Your task to perform on an android device: open app "Google News" (install if not already installed) Image 0: 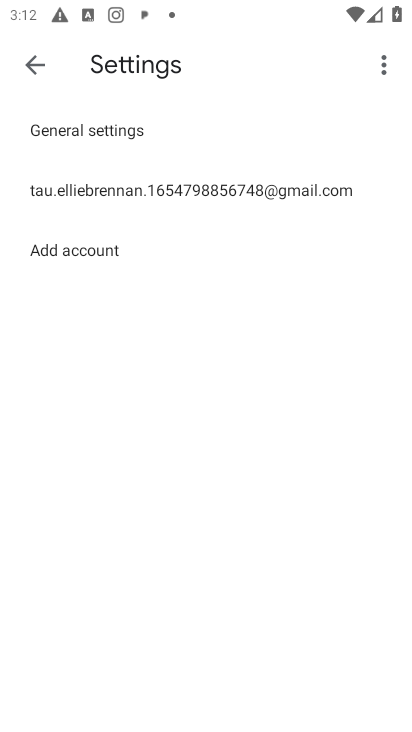
Step 0: press home button
Your task to perform on an android device: open app "Google News" (install if not already installed) Image 1: 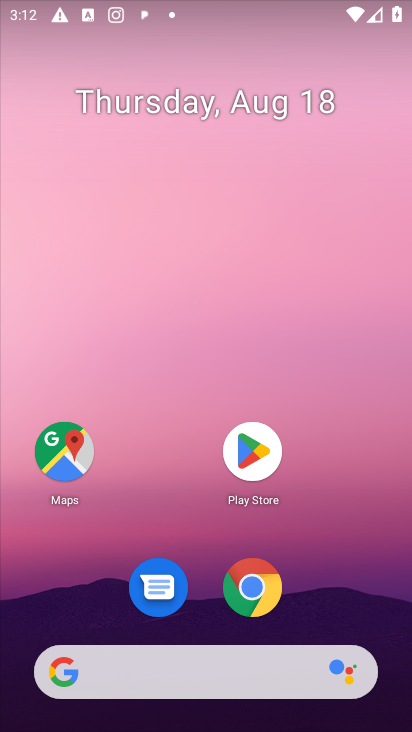
Step 1: click (257, 450)
Your task to perform on an android device: open app "Google News" (install if not already installed) Image 2: 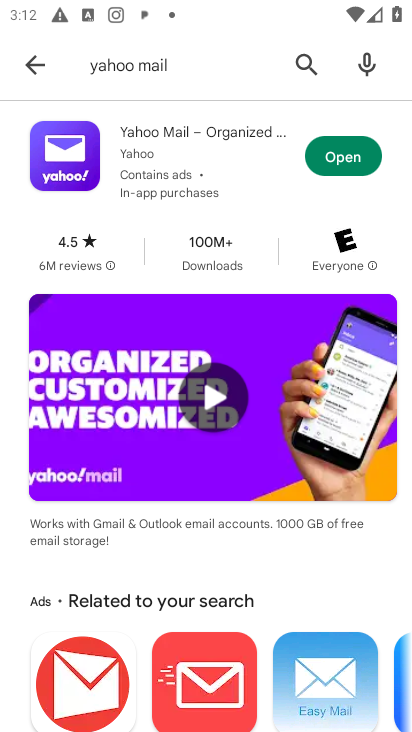
Step 2: click (306, 64)
Your task to perform on an android device: open app "Google News" (install if not already installed) Image 3: 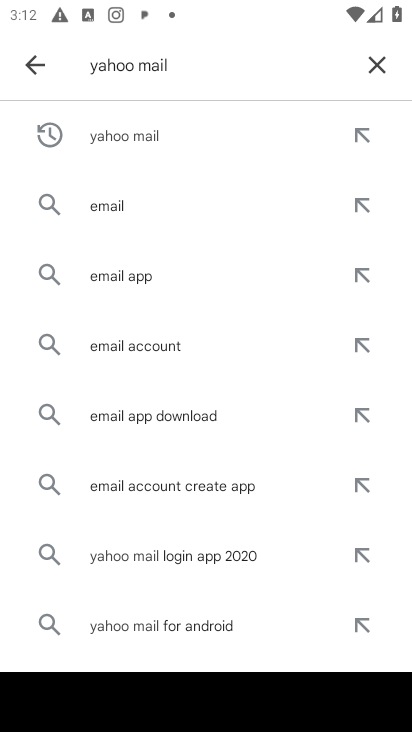
Step 3: click (375, 60)
Your task to perform on an android device: open app "Google News" (install if not already installed) Image 4: 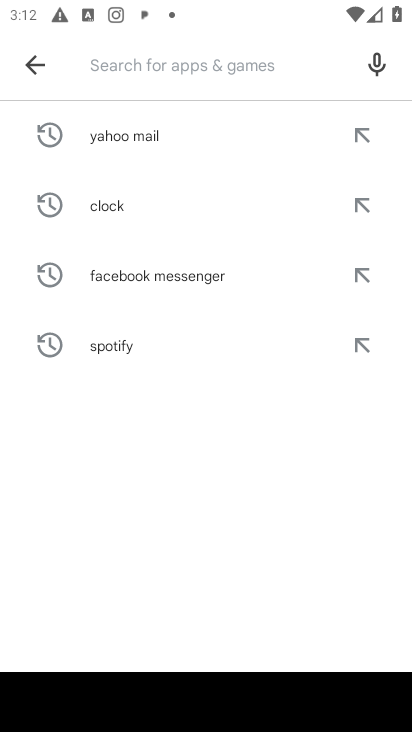
Step 4: type "Google News"
Your task to perform on an android device: open app "Google News" (install if not already installed) Image 5: 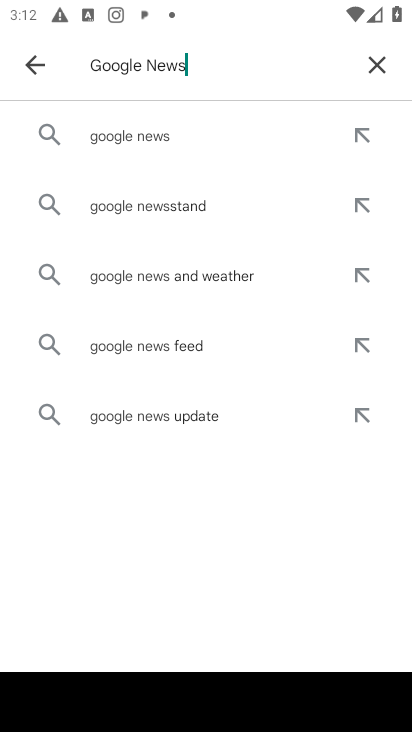
Step 5: click (153, 137)
Your task to perform on an android device: open app "Google News" (install if not already installed) Image 6: 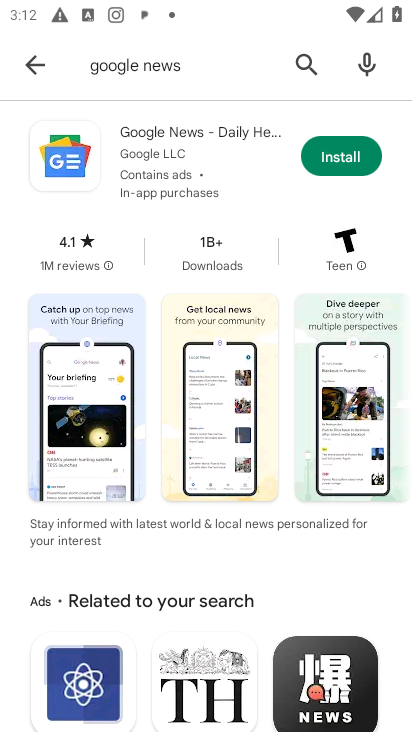
Step 6: click (350, 158)
Your task to perform on an android device: open app "Google News" (install if not already installed) Image 7: 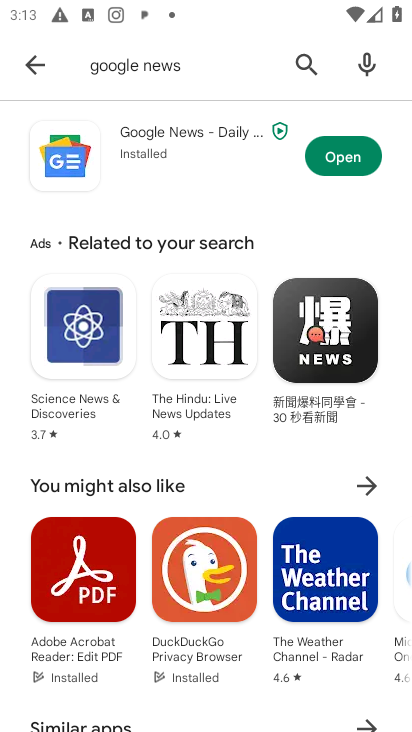
Step 7: click (331, 164)
Your task to perform on an android device: open app "Google News" (install if not already installed) Image 8: 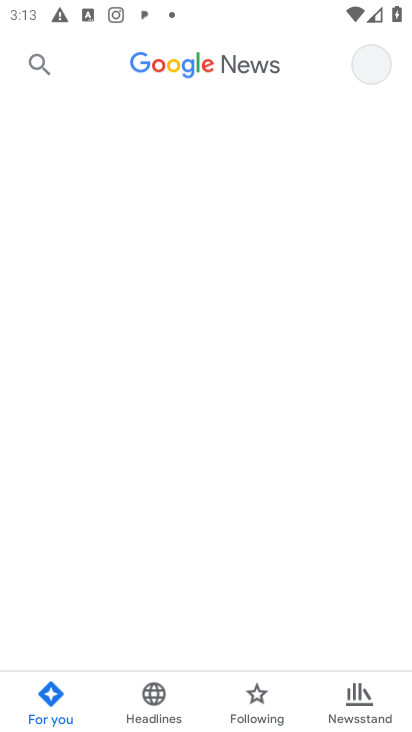
Step 8: task complete